Your task to perform on an android device: turn off javascript in the chrome app Image 0: 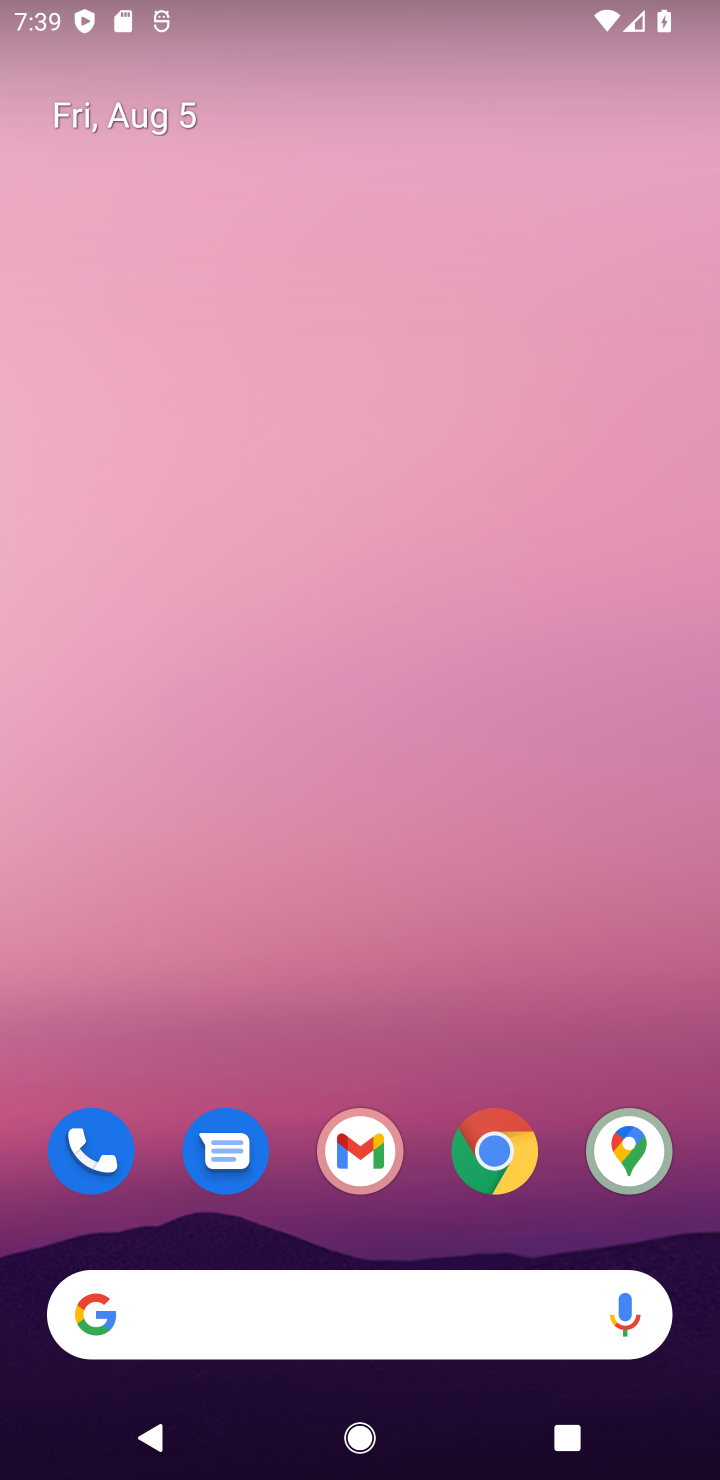
Step 0: drag from (412, 1232) to (346, 138)
Your task to perform on an android device: turn off javascript in the chrome app Image 1: 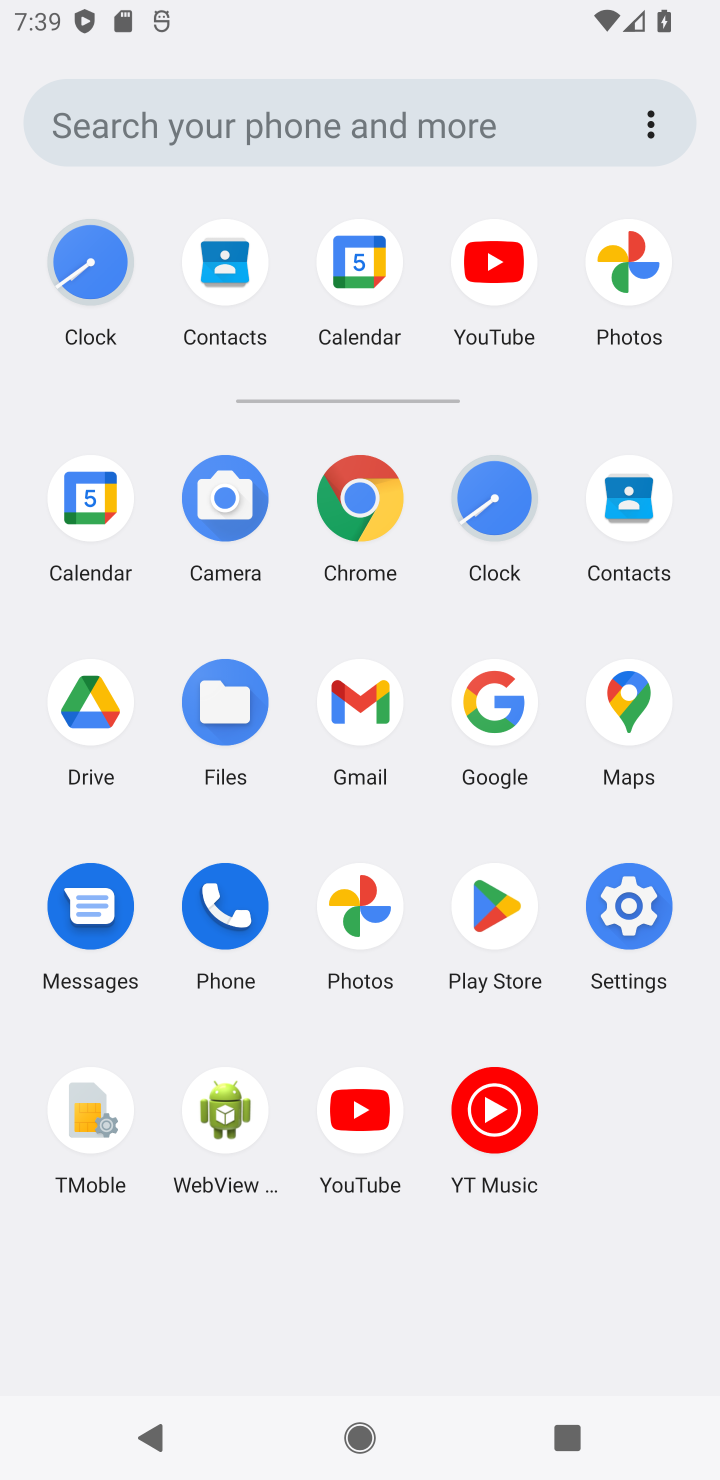
Step 1: click (380, 513)
Your task to perform on an android device: turn off javascript in the chrome app Image 2: 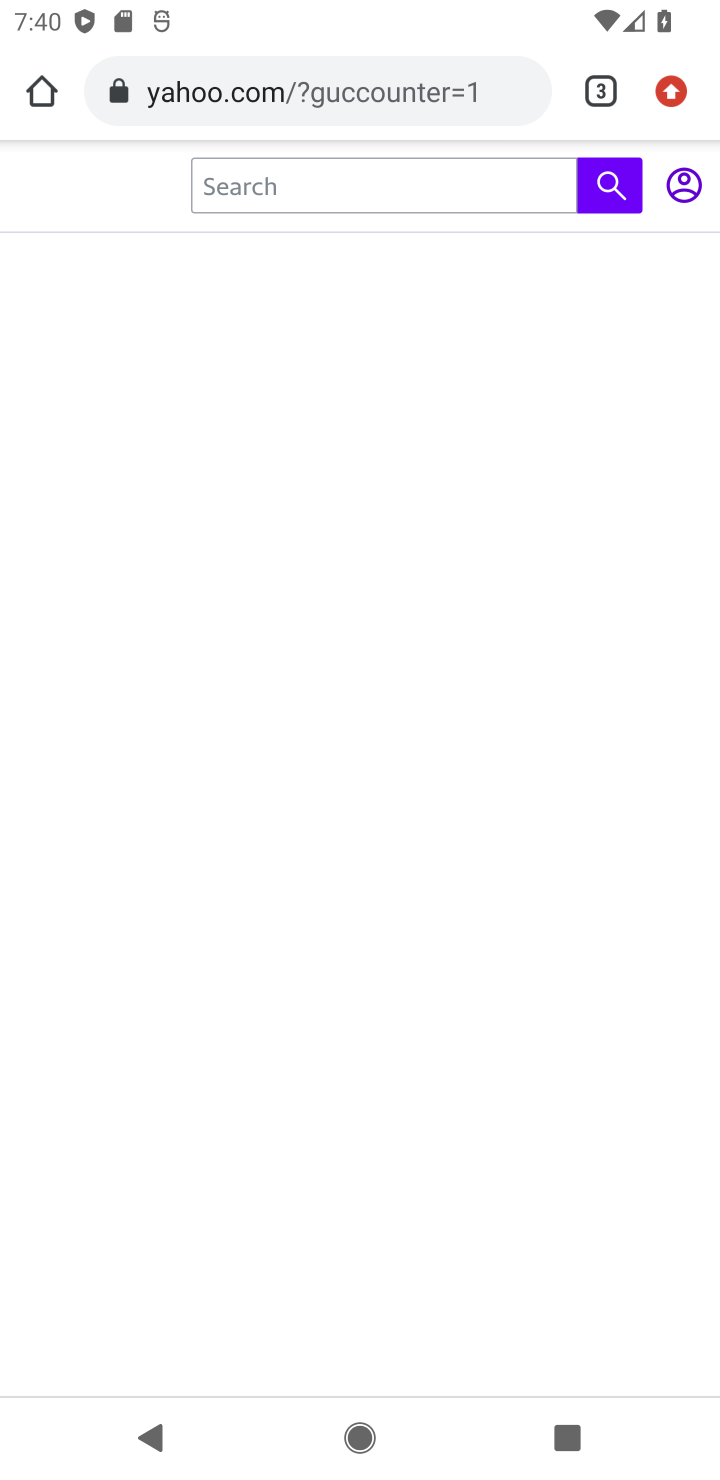
Step 2: drag from (673, 78) to (680, 353)
Your task to perform on an android device: turn off javascript in the chrome app Image 3: 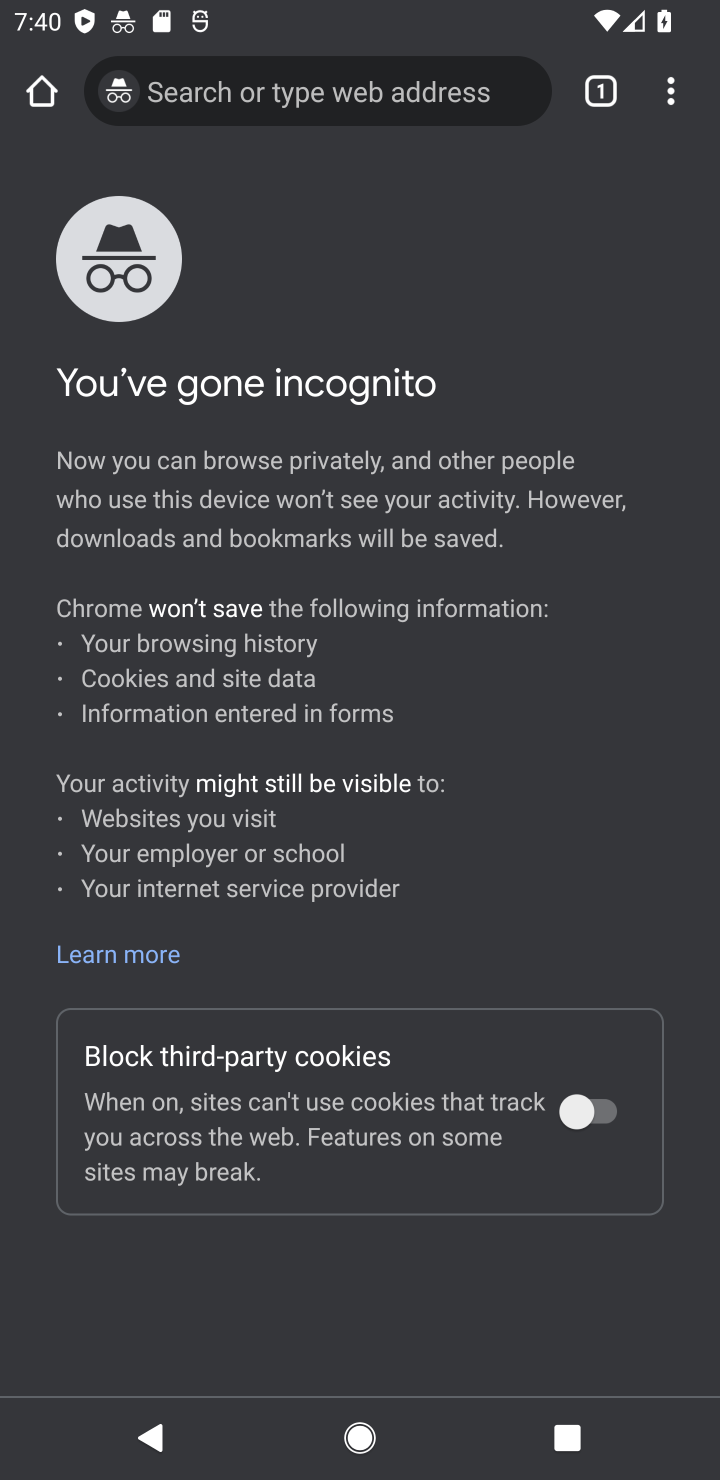
Step 3: drag from (662, 69) to (367, 858)
Your task to perform on an android device: turn off javascript in the chrome app Image 4: 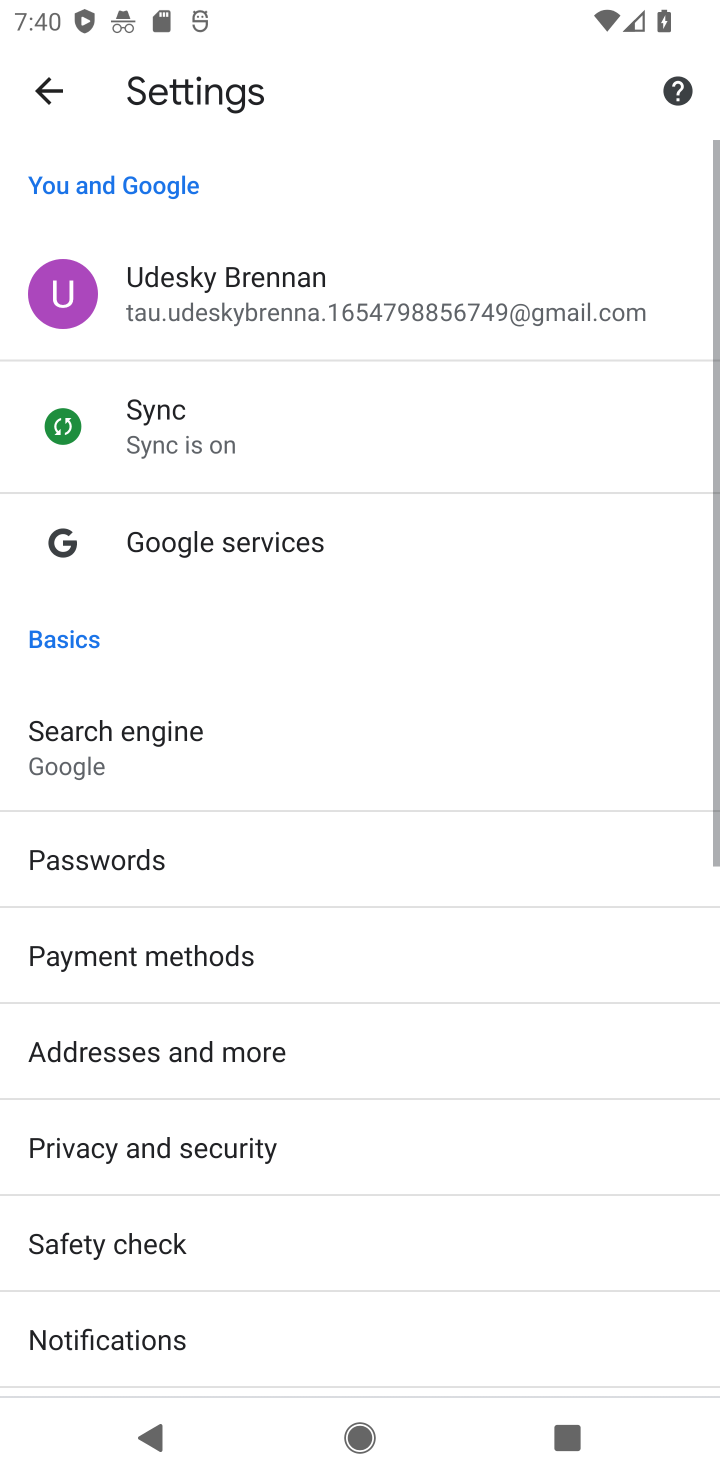
Step 4: drag from (300, 1200) to (389, 290)
Your task to perform on an android device: turn off javascript in the chrome app Image 5: 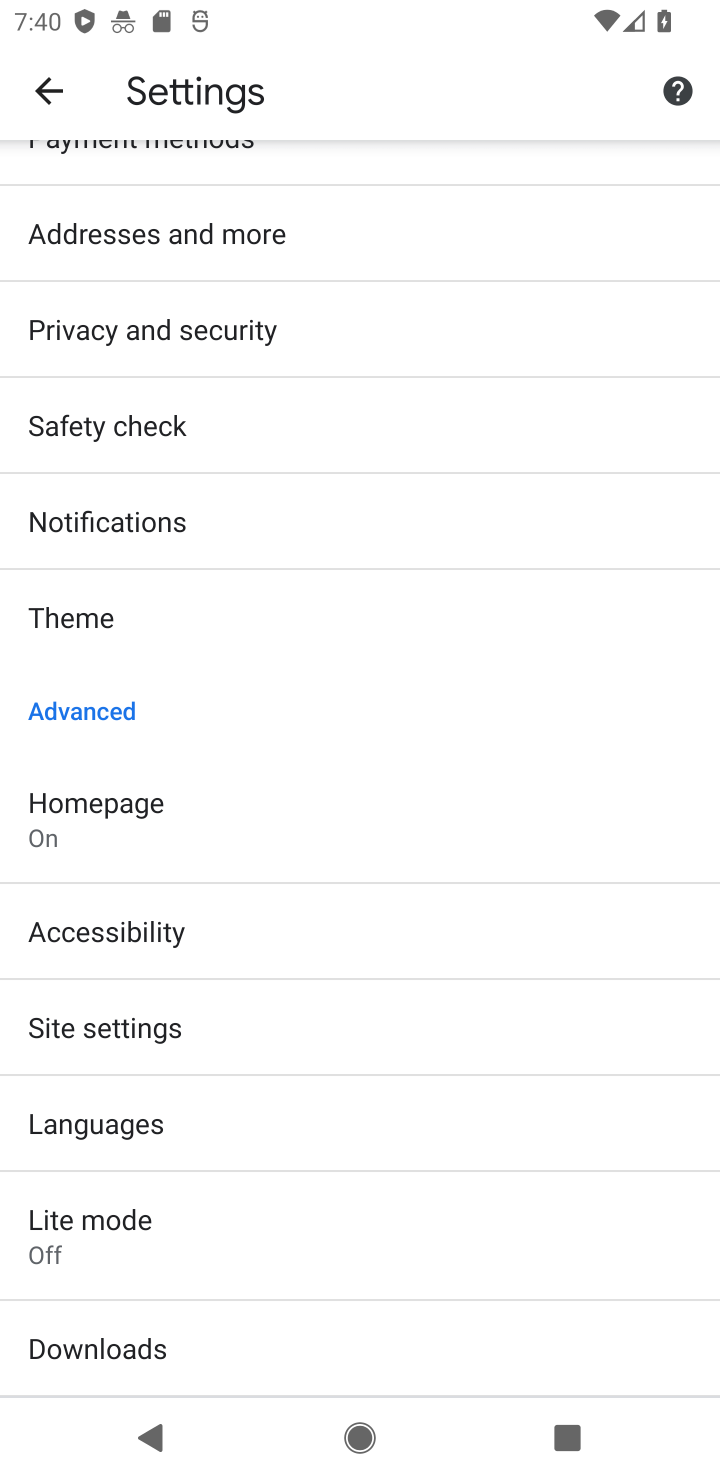
Step 5: click (164, 1039)
Your task to perform on an android device: turn off javascript in the chrome app Image 6: 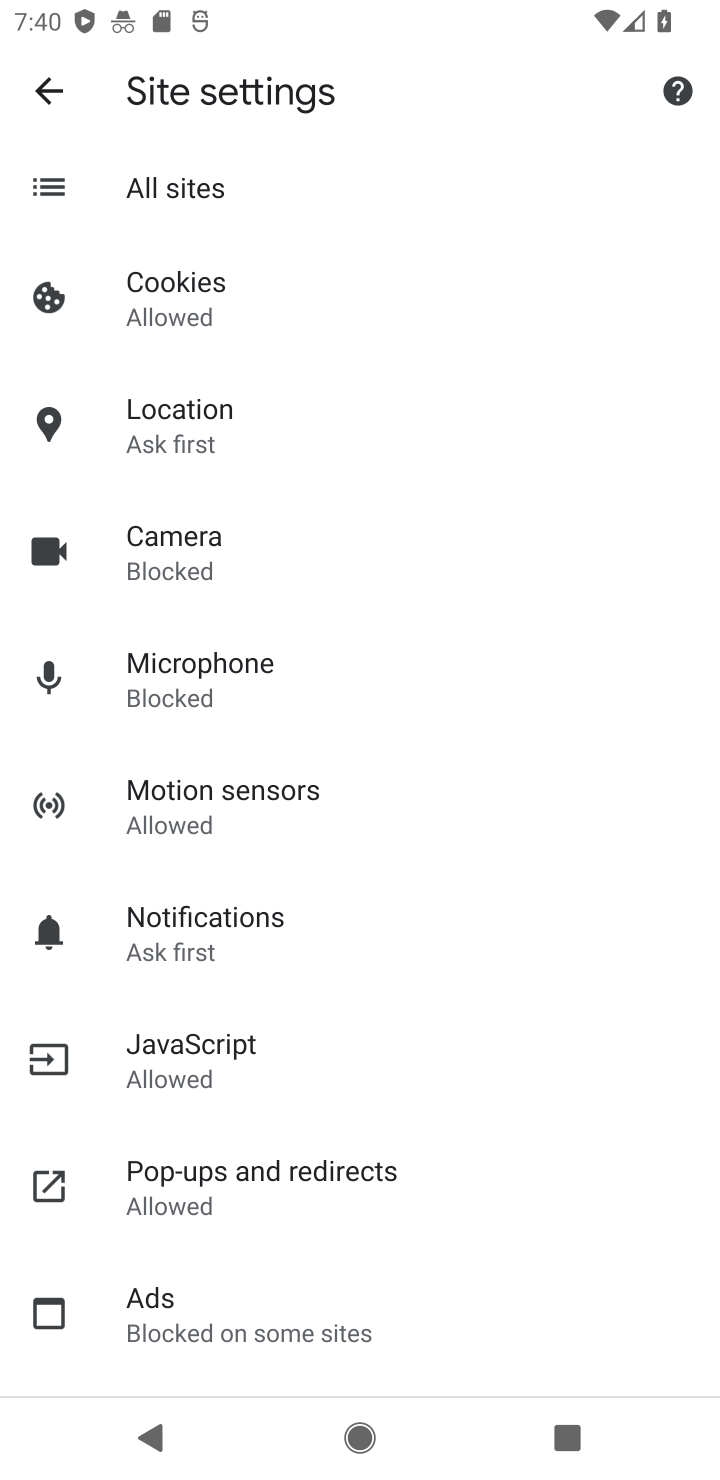
Step 6: click (266, 1046)
Your task to perform on an android device: turn off javascript in the chrome app Image 7: 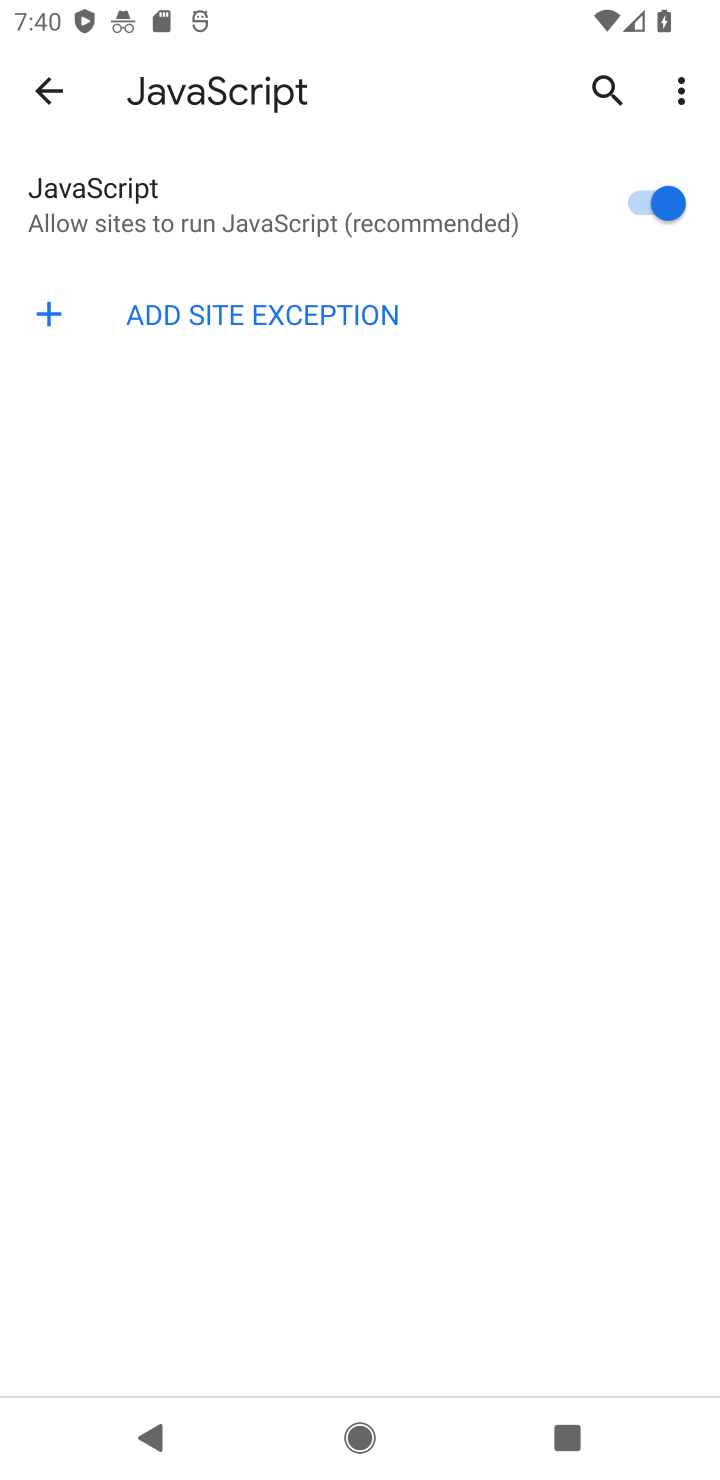
Step 7: click (629, 192)
Your task to perform on an android device: turn off javascript in the chrome app Image 8: 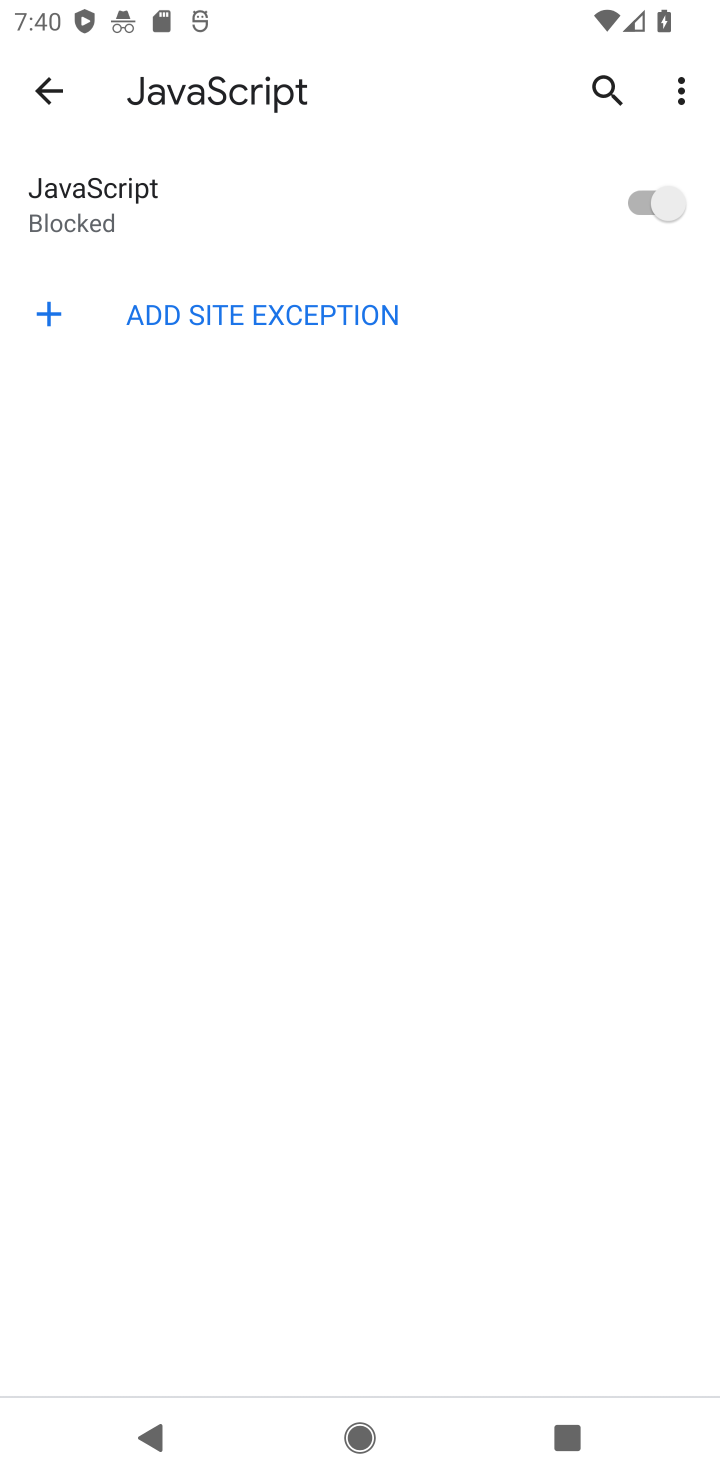
Step 8: task complete